Your task to perform on an android device: set an alarm Image 0: 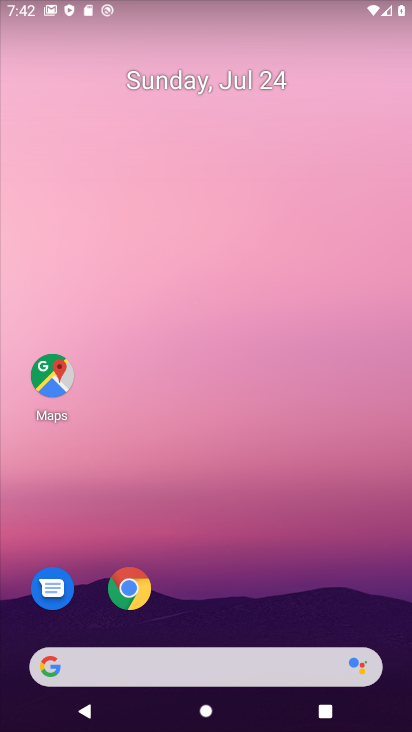
Step 0: drag from (262, 591) to (396, 193)
Your task to perform on an android device: set an alarm Image 1: 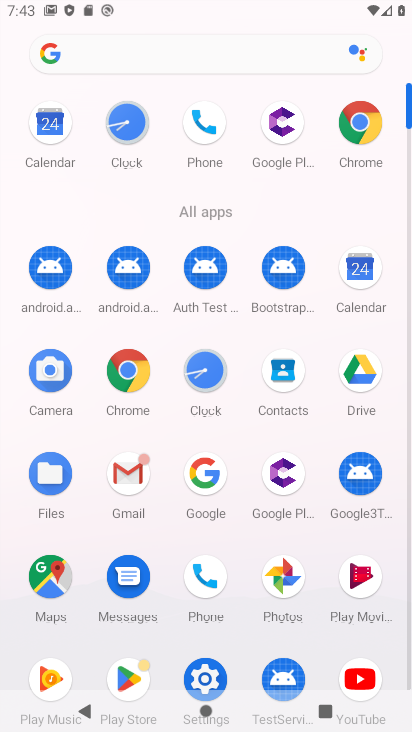
Step 1: click (213, 381)
Your task to perform on an android device: set an alarm Image 2: 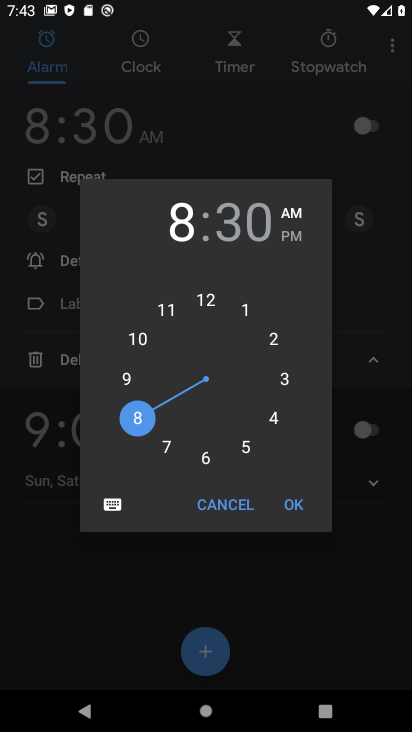
Step 2: click (282, 599)
Your task to perform on an android device: set an alarm Image 3: 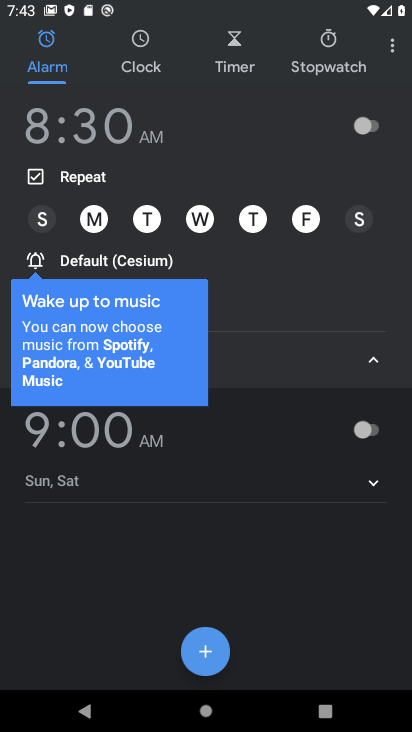
Step 3: click (366, 126)
Your task to perform on an android device: set an alarm Image 4: 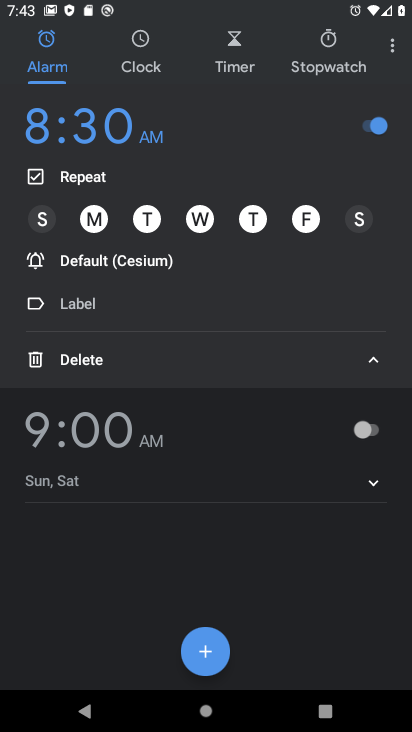
Step 4: task complete